Your task to perform on an android device: Go to display settings Image 0: 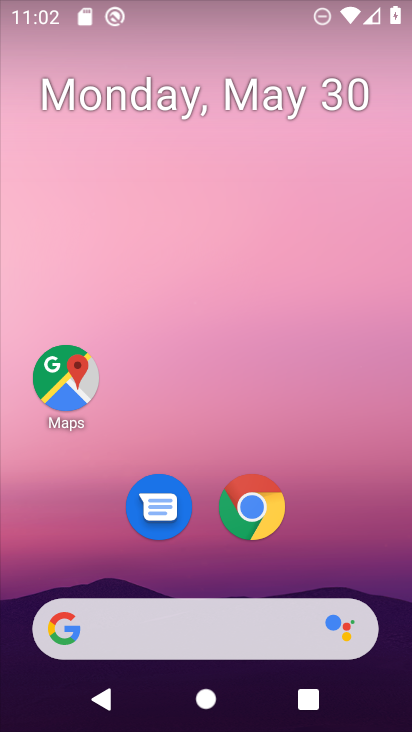
Step 0: drag from (393, 624) to (332, 77)
Your task to perform on an android device: Go to display settings Image 1: 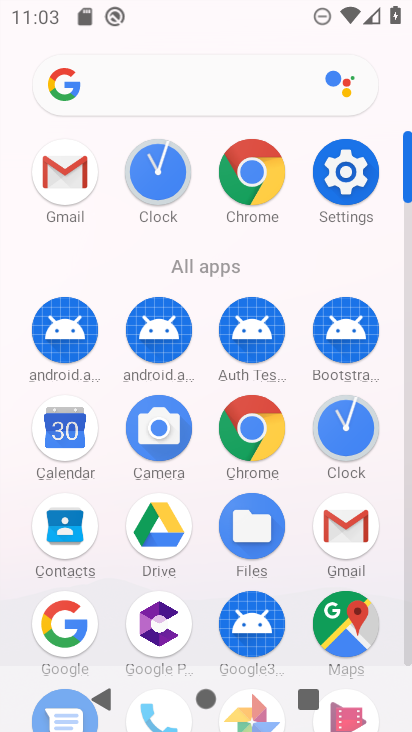
Step 1: click (370, 166)
Your task to perform on an android device: Go to display settings Image 2: 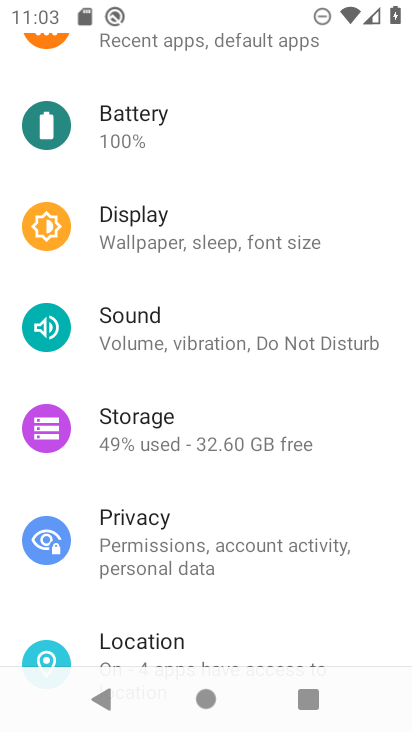
Step 2: click (160, 231)
Your task to perform on an android device: Go to display settings Image 3: 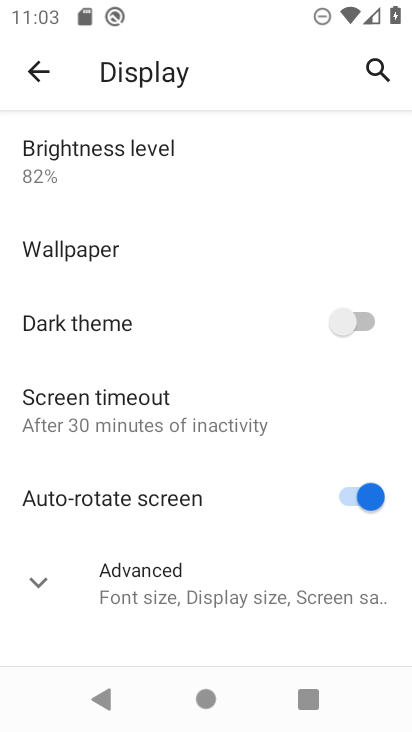
Step 3: task complete